Your task to perform on an android device: Show me popular videos on Youtube Image 0: 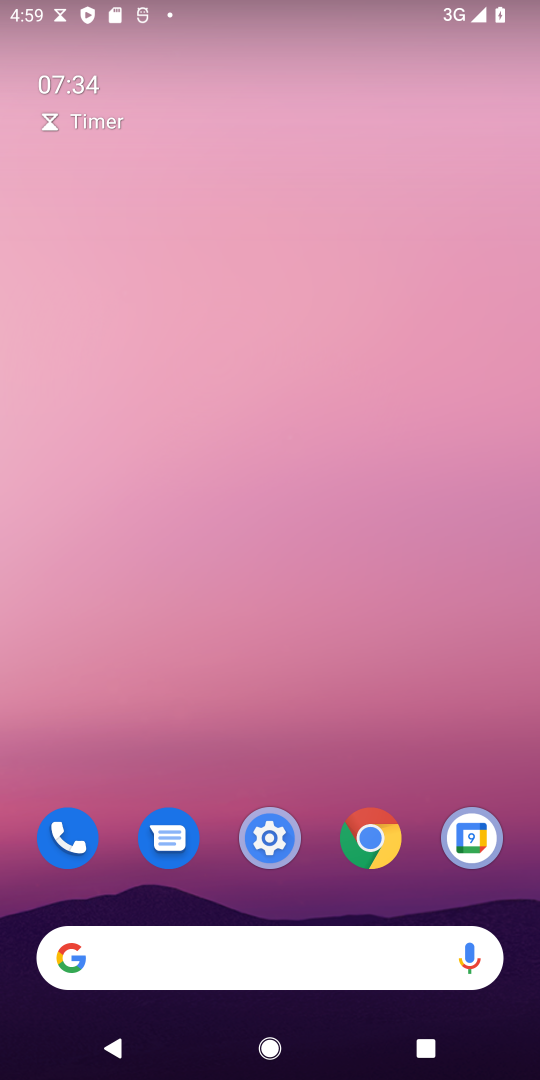
Step 0: drag from (314, 783) to (289, 114)
Your task to perform on an android device: Show me popular videos on Youtube Image 1: 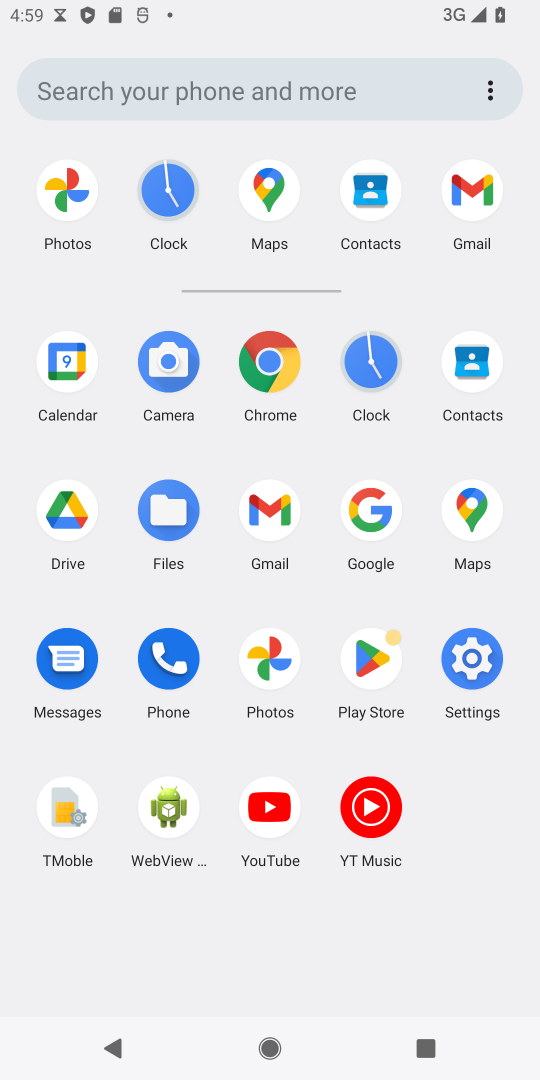
Step 1: click (287, 845)
Your task to perform on an android device: Show me popular videos on Youtube Image 2: 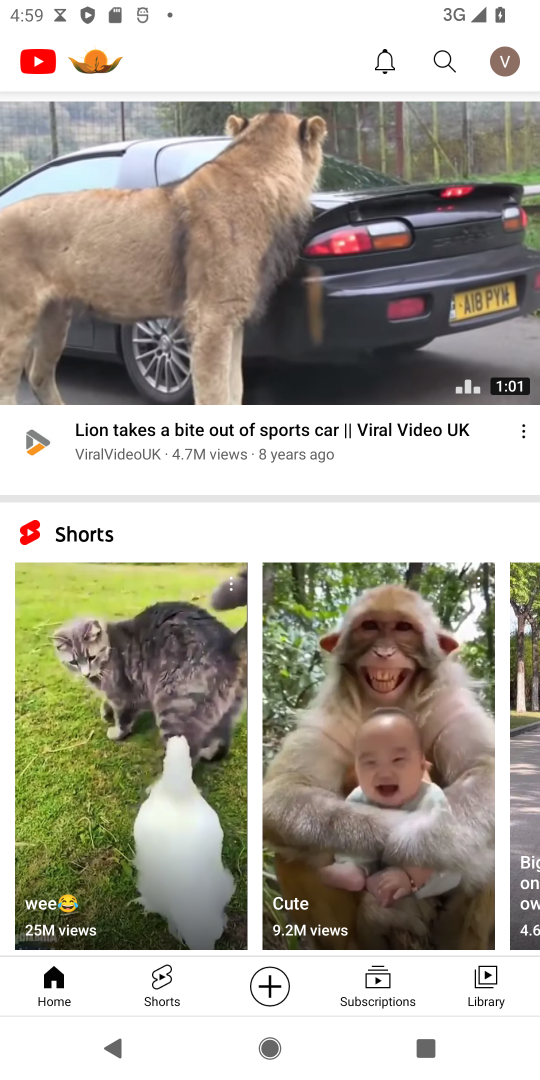
Step 2: task complete